Your task to perform on an android device: What is the recent news? Image 0: 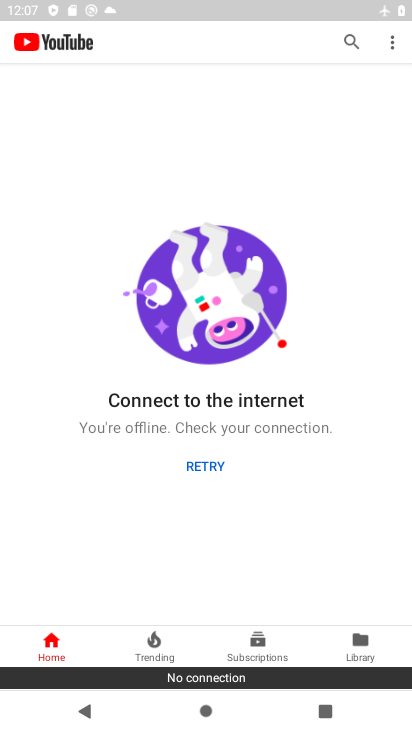
Step 0: press home button
Your task to perform on an android device: What is the recent news? Image 1: 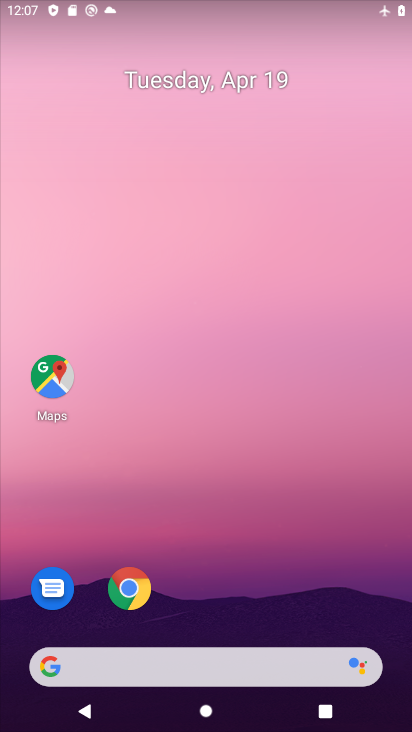
Step 1: task complete